Your task to perform on an android device: Open the stopwatch Image 0: 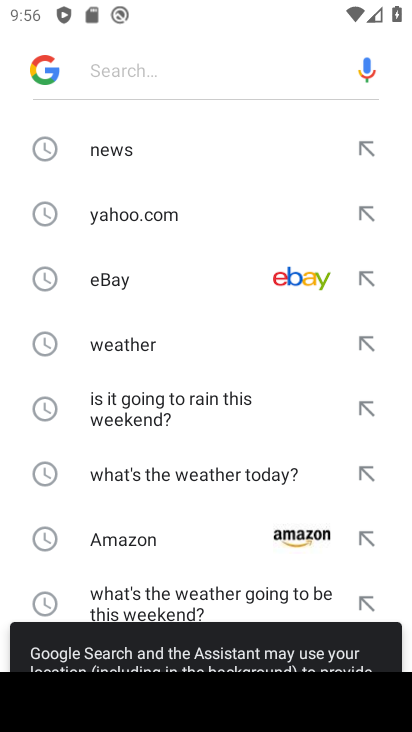
Step 0: press home button
Your task to perform on an android device: Open the stopwatch Image 1: 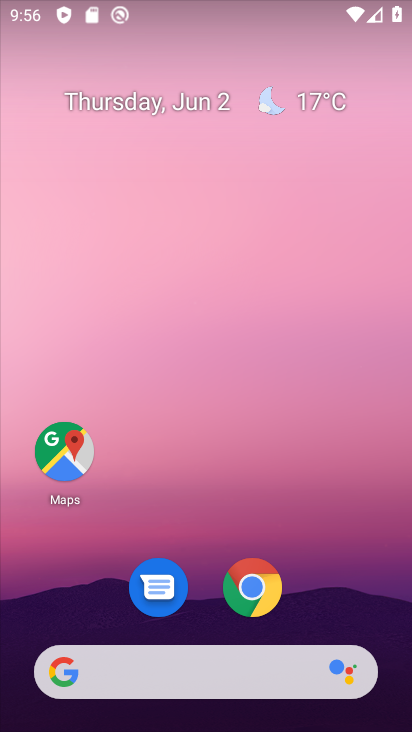
Step 1: drag from (205, 593) to (204, 114)
Your task to perform on an android device: Open the stopwatch Image 2: 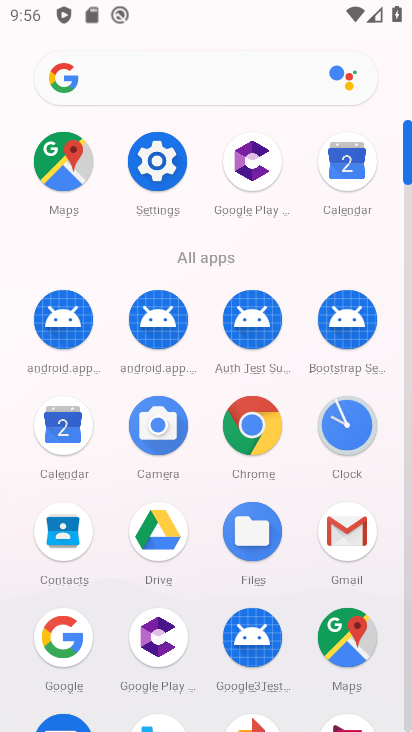
Step 2: click (341, 411)
Your task to perform on an android device: Open the stopwatch Image 3: 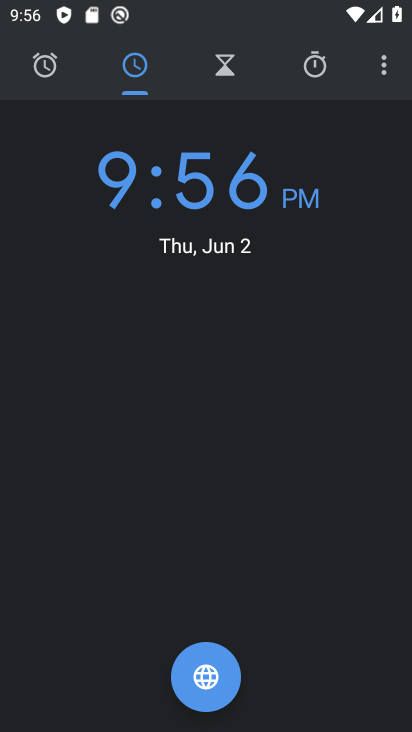
Step 3: click (316, 60)
Your task to perform on an android device: Open the stopwatch Image 4: 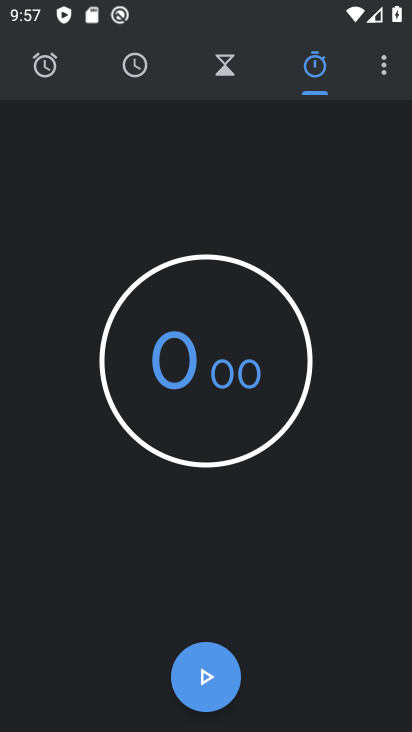
Step 4: click (204, 666)
Your task to perform on an android device: Open the stopwatch Image 5: 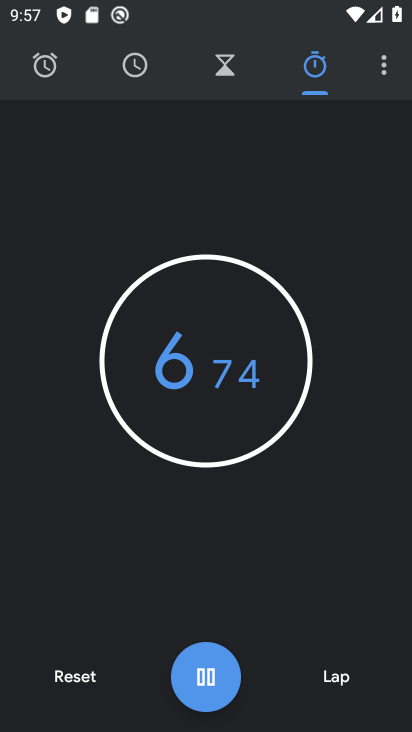
Step 5: task complete